Your task to perform on an android device: Open Android settings Image 0: 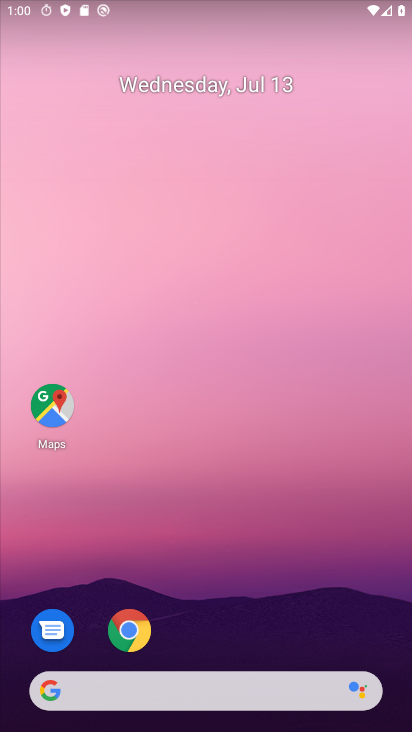
Step 0: drag from (324, 590) to (336, 59)
Your task to perform on an android device: Open Android settings Image 1: 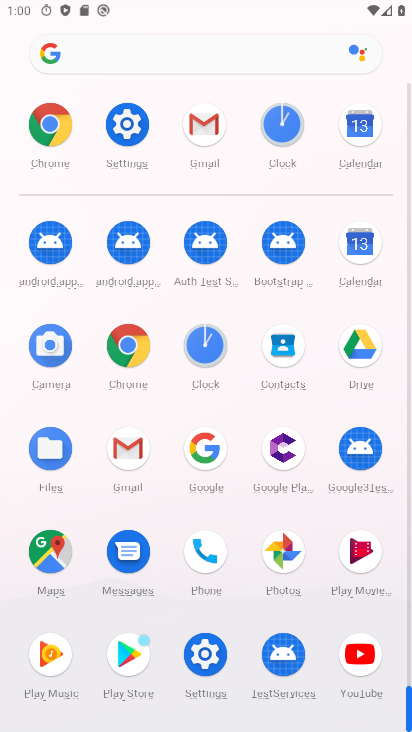
Step 1: click (122, 126)
Your task to perform on an android device: Open Android settings Image 2: 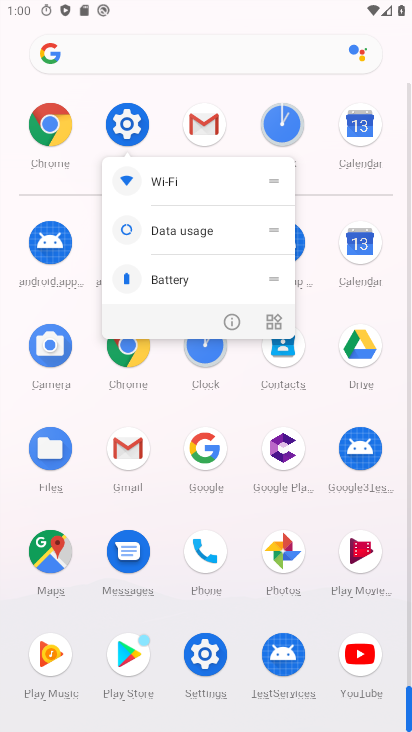
Step 2: click (122, 126)
Your task to perform on an android device: Open Android settings Image 3: 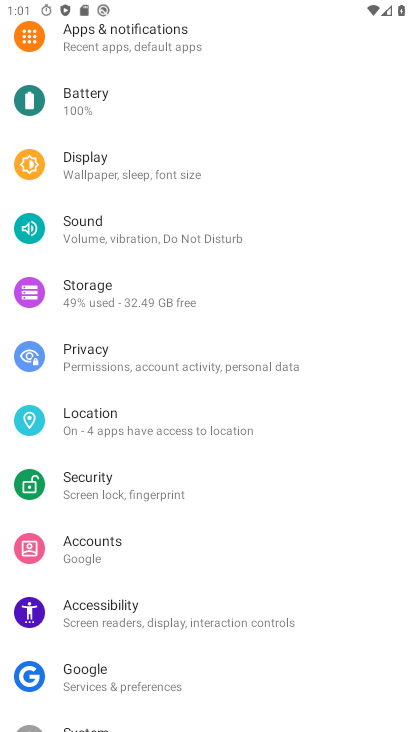
Step 3: task complete